Your task to perform on an android device: Open Google Chrome Image 0: 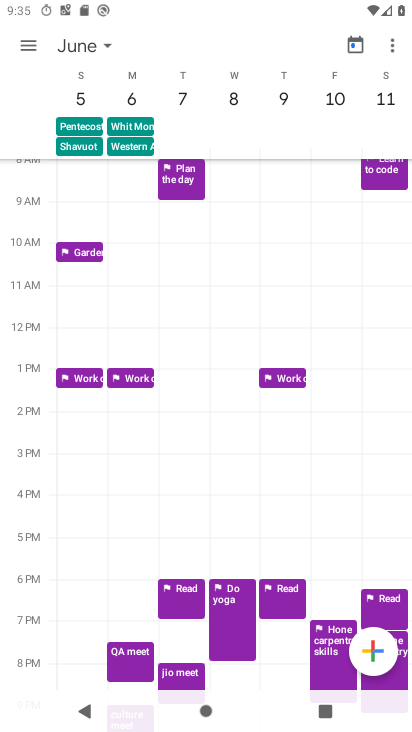
Step 0: press home button
Your task to perform on an android device: Open Google Chrome Image 1: 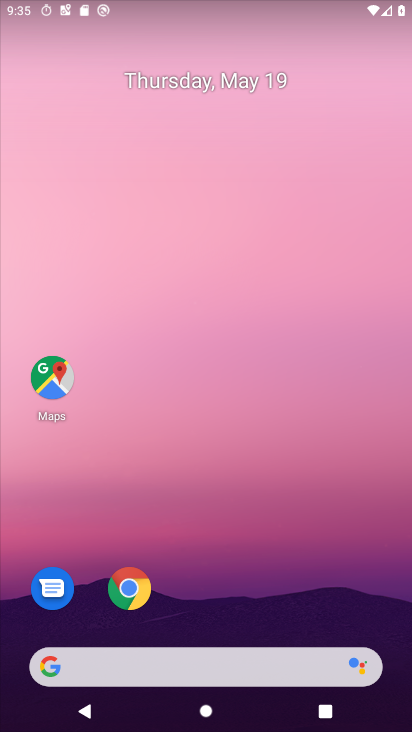
Step 1: click (135, 597)
Your task to perform on an android device: Open Google Chrome Image 2: 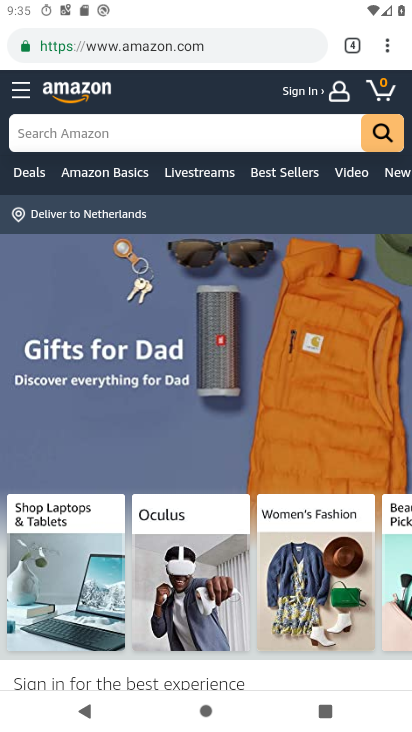
Step 2: task complete